Your task to perform on an android device: Show me productivity apps on the Play Store Image 0: 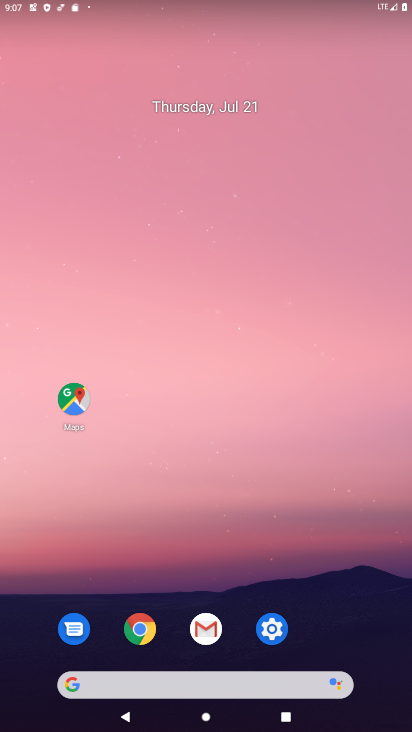
Step 0: press home button
Your task to perform on an android device: Show me productivity apps on the Play Store Image 1: 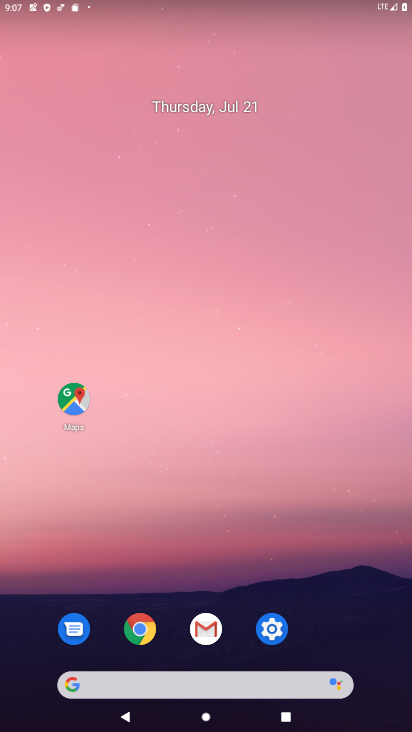
Step 1: drag from (269, 683) to (283, 60)
Your task to perform on an android device: Show me productivity apps on the Play Store Image 2: 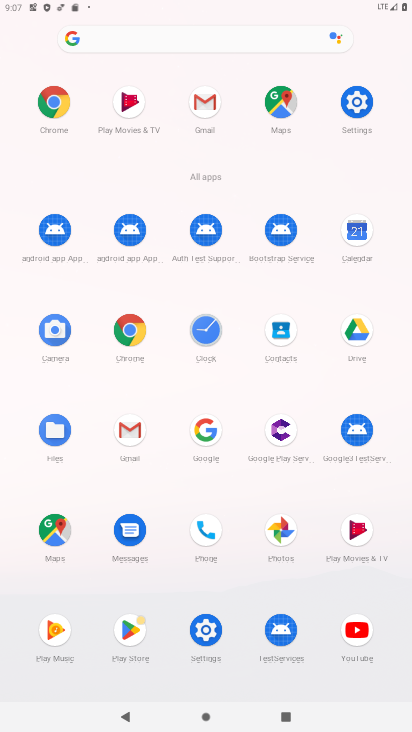
Step 2: click (137, 625)
Your task to perform on an android device: Show me productivity apps on the Play Store Image 3: 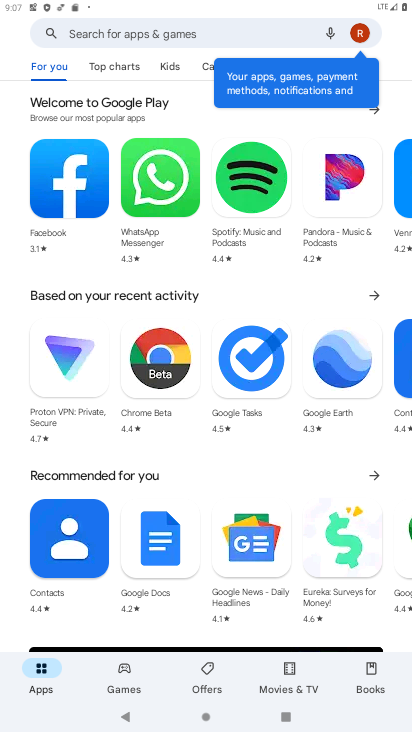
Step 3: click (129, 31)
Your task to perform on an android device: Show me productivity apps on the Play Store Image 4: 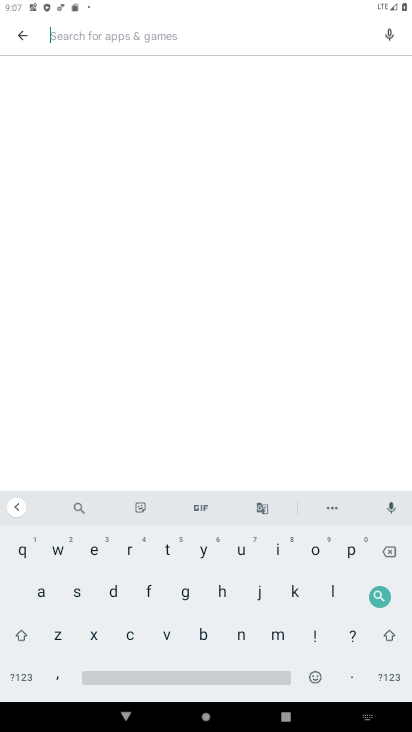
Step 4: click (353, 549)
Your task to perform on an android device: Show me productivity apps on the Play Store Image 5: 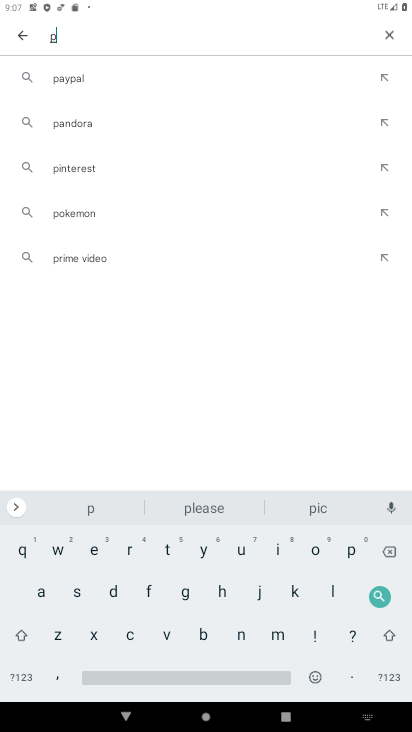
Step 5: click (128, 547)
Your task to perform on an android device: Show me productivity apps on the Play Store Image 6: 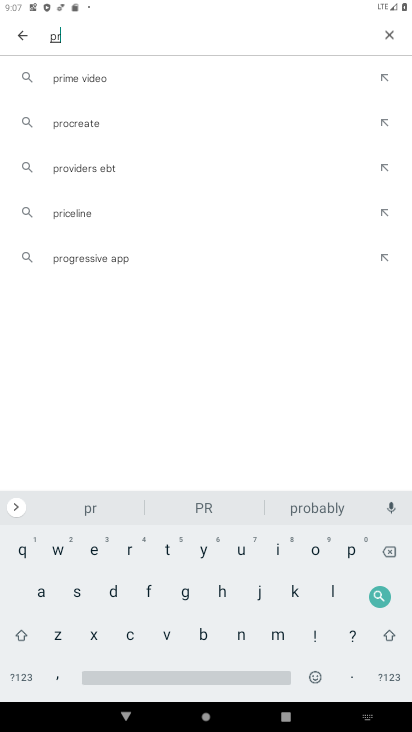
Step 6: click (313, 551)
Your task to perform on an android device: Show me productivity apps on the Play Store Image 7: 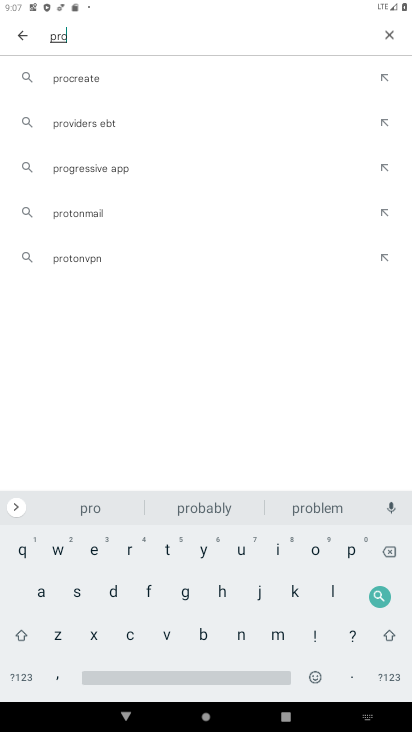
Step 7: click (114, 587)
Your task to perform on an android device: Show me productivity apps on the Play Store Image 8: 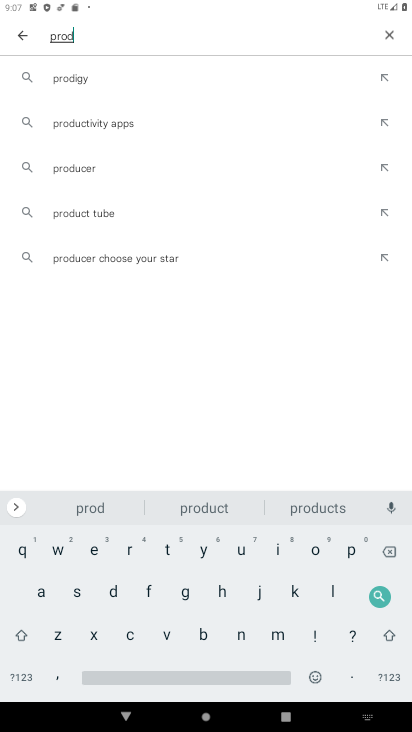
Step 8: click (241, 544)
Your task to perform on an android device: Show me productivity apps on the Play Store Image 9: 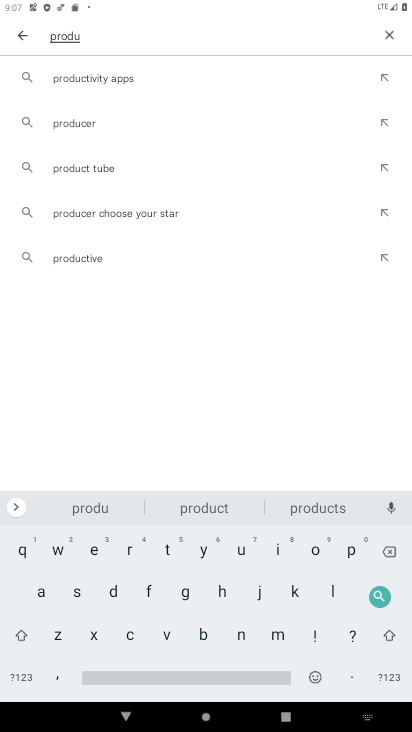
Step 9: click (109, 82)
Your task to perform on an android device: Show me productivity apps on the Play Store Image 10: 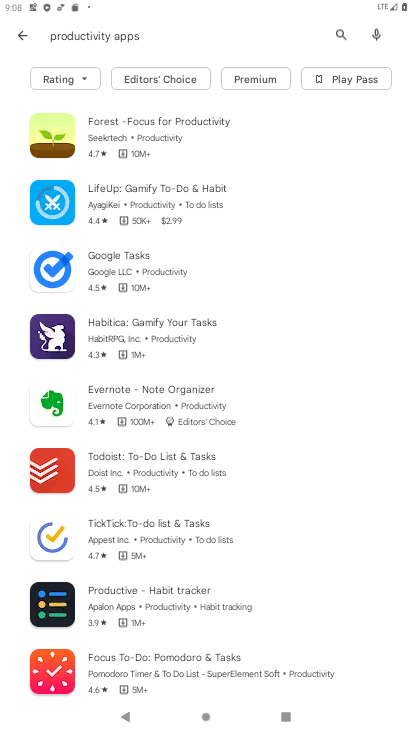
Step 10: task complete